Your task to perform on an android device: Do I have any events today? Image 0: 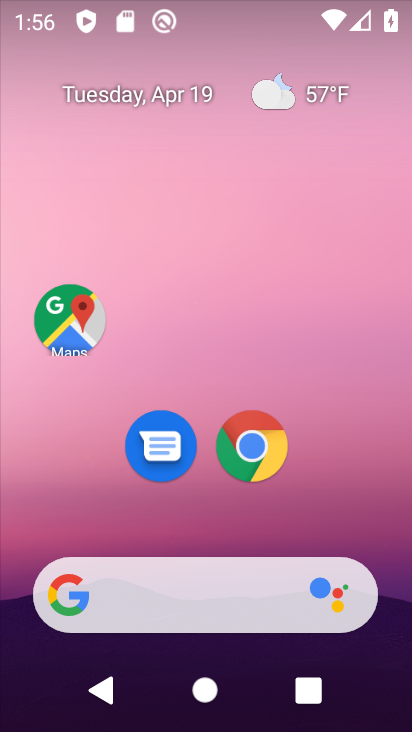
Step 0: drag from (326, 523) to (290, 12)
Your task to perform on an android device: Do I have any events today? Image 1: 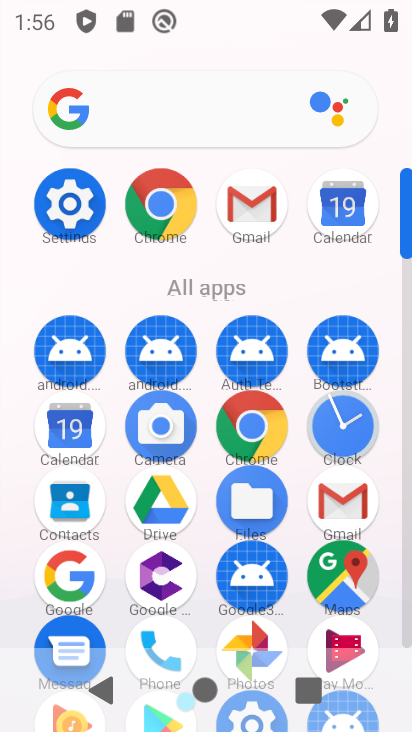
Step 1: click (87, 420)
Your task to perform on an android device: Do I have any events today? Image 2: 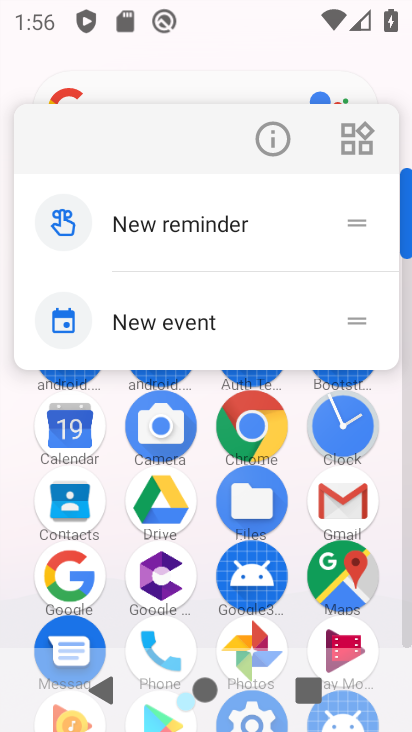
Step 2: click (88, 418)
Your task to perform on an android device: Do I have any events today? Image 3: 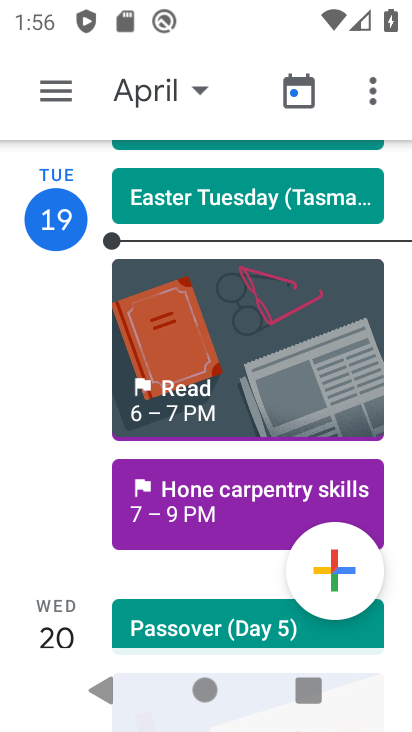
Step 3: click (170, 83)
Your task to perform on an android device: Do I have any events today? Image 4: 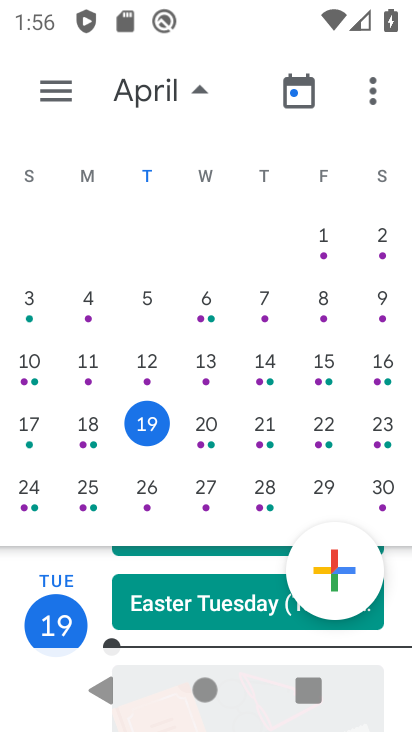
Step 4: click (151, 428)
Your task to perform on an android device: Do I have any events today? Image 5: 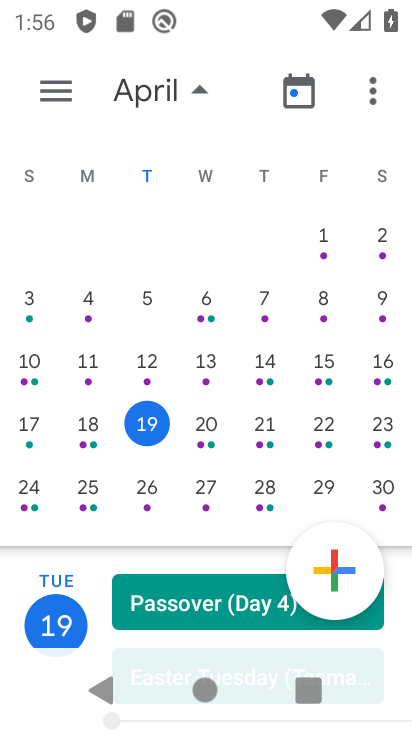
Step 5: task complete